Your task to perform on an android device: Set the phone to "Do not disturb". Image 0: 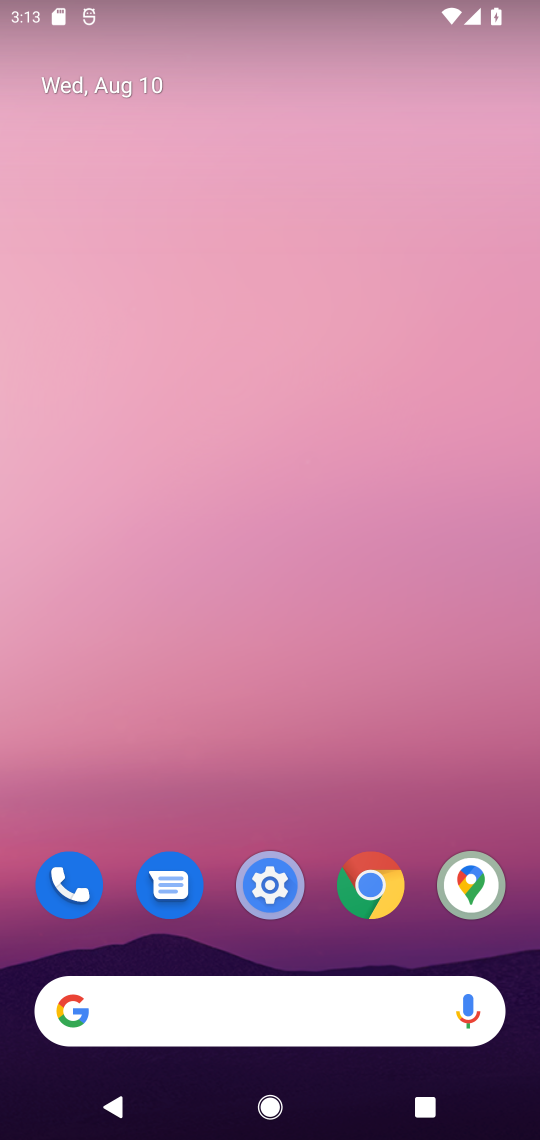
Step 0: click (271, 884)
Your task to perform on an android device: Set the phone to "Do not disturb". Image 1: 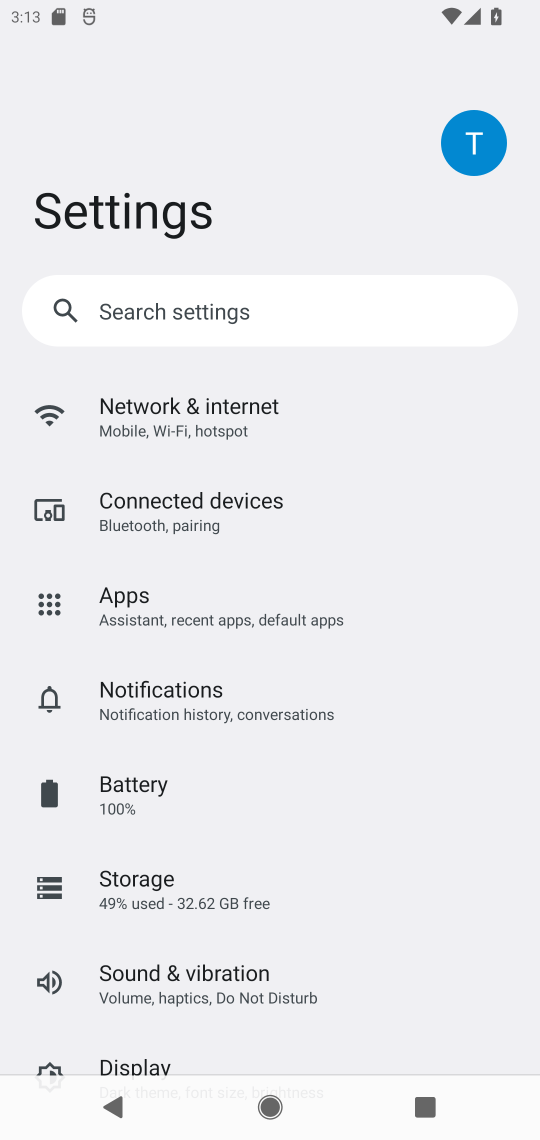
Step 1: click (198, 971)
Your task to perform on an android device: Set the phone to "Do not disturb". Image 2: 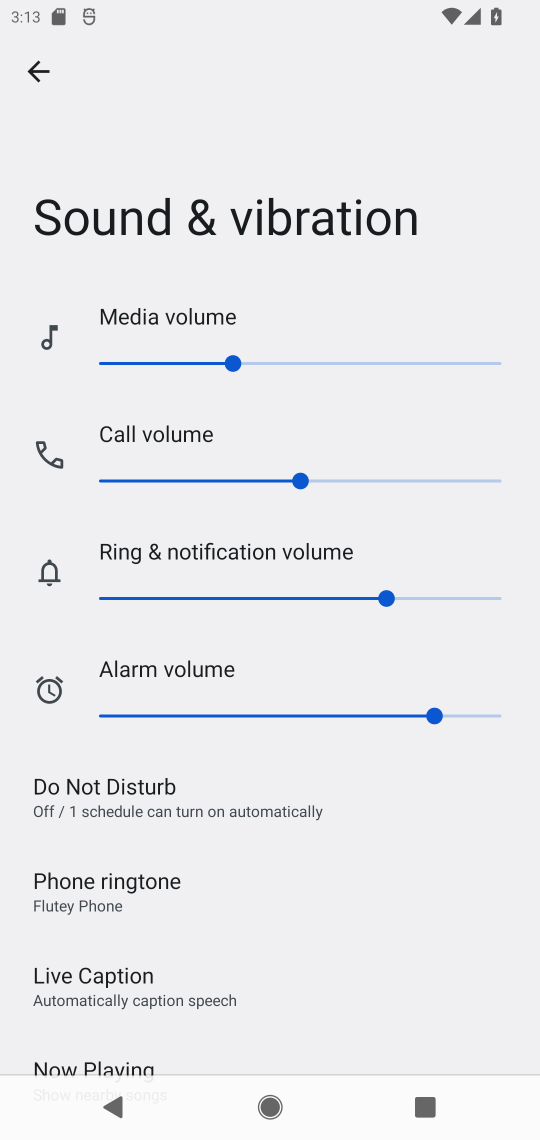
Step 2: click (131, 791)
Your task to perform on an android device: Set the phone to "Do not disturb". Image 3: 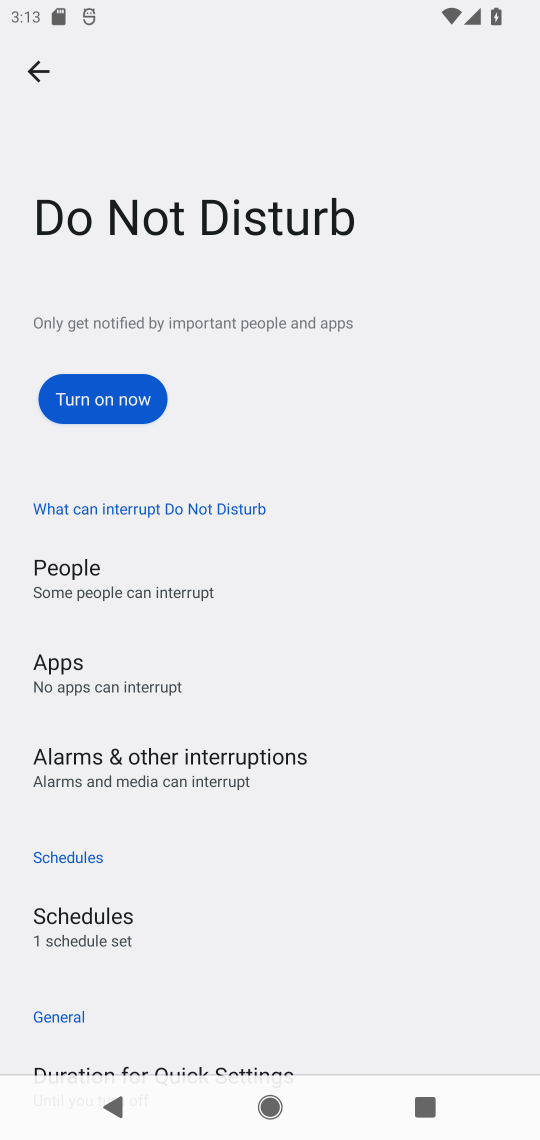
Step 3: click (113, 404)
Your task to perform on an android device: Set the phone to "Do not disturb". Image 4: 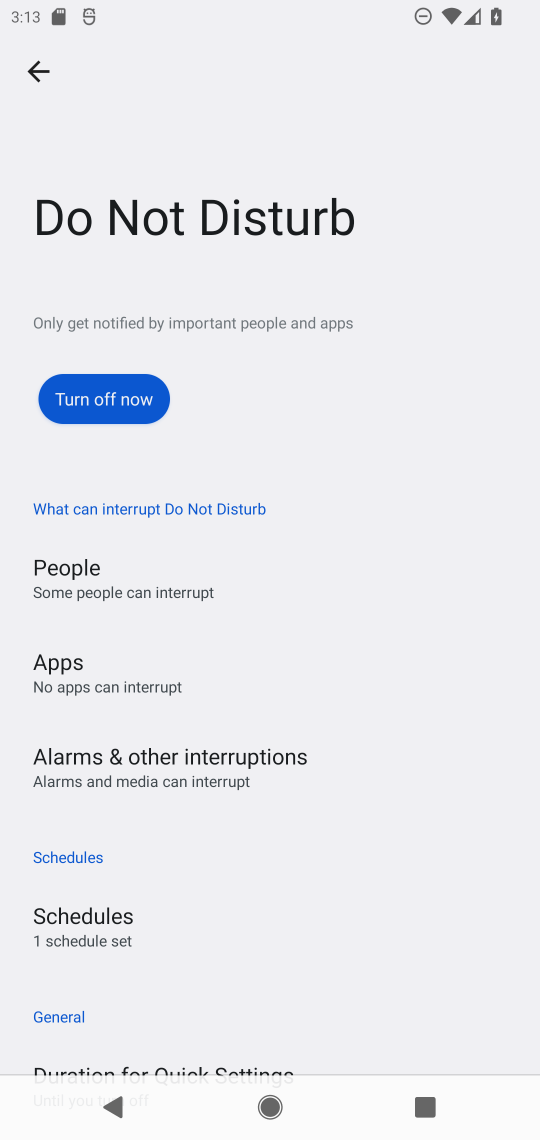
Step 4: task complete